Your task to perform on an android device: Is it going to rain today? Image 0: 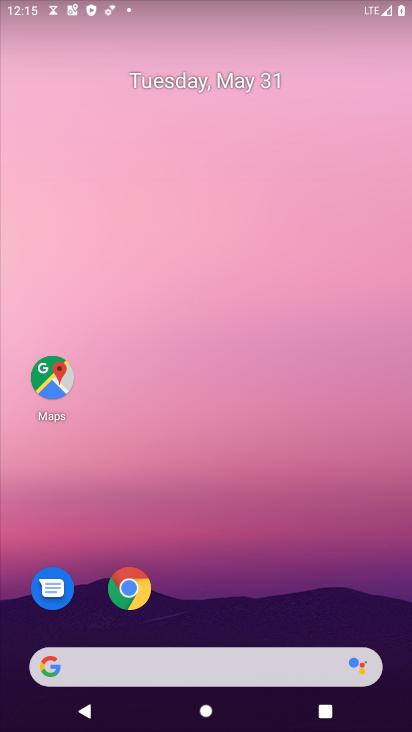
Step 0: press home button
Your task to perform on an android device: Is it going to rain today? Image 1: 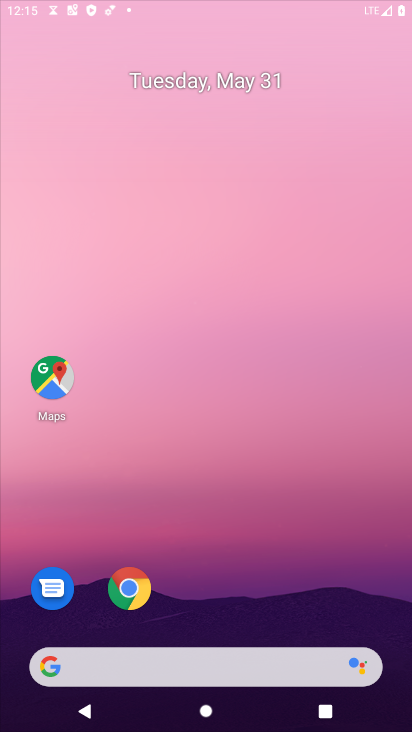
Step 1: drag from (218, 623) to (234, 120)
Your task to perform on an android device: Is it going to rain today? Image 2: 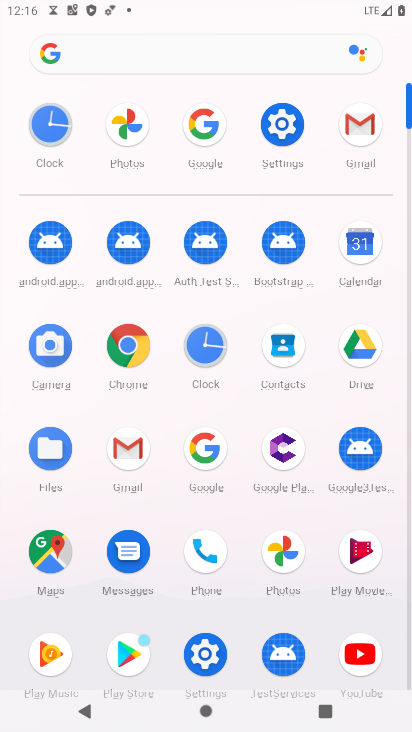
Step 2: press home button
Your task to perform on an android device: Is it going to rain today? Image 3: 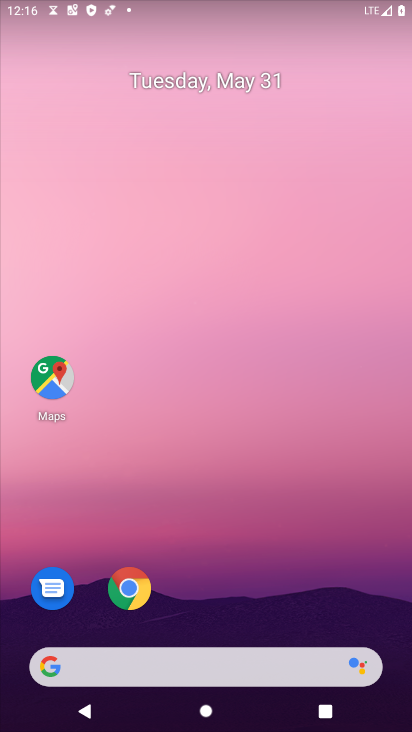
Step 3: drag from (7, 272) to (404, 305)
Your task to perform on an android device: Is it going to rain today? Image 4: 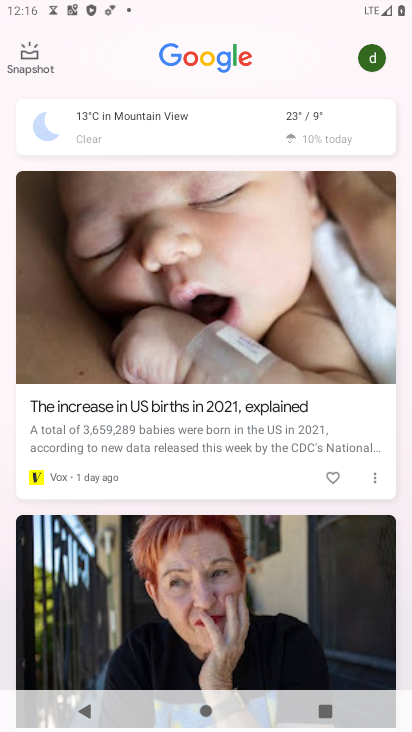
Step 4: click (262, 121)
Your task to perform on an android device: Is it going to rain today? Image 5: 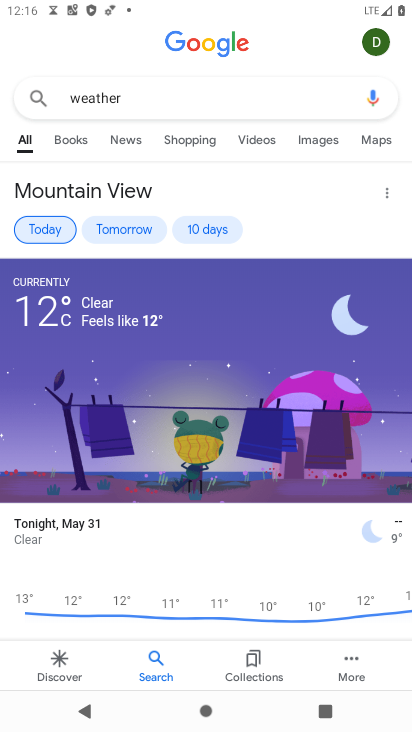
Step 5: task complete